Your task to perform on an android device: turn off translation in the chrome app Image 0: 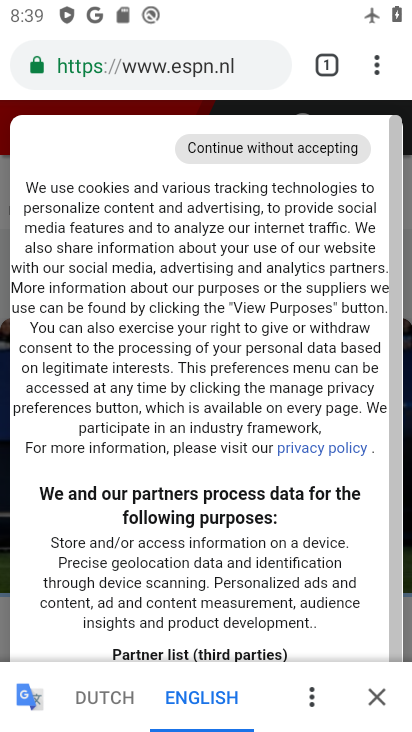
Step 0: press home button
Your task to perform on an android device: turn off translation in the chrome app Image 1: 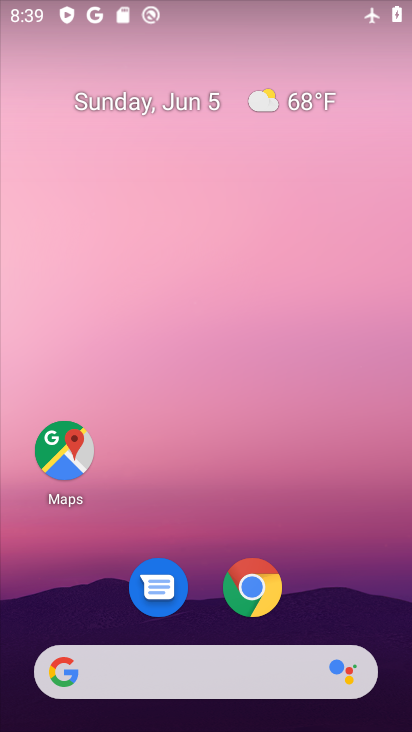
Step 1: click (254, 598)
Your task to perform on an android device: turn off translation in the chrome app Image 2: 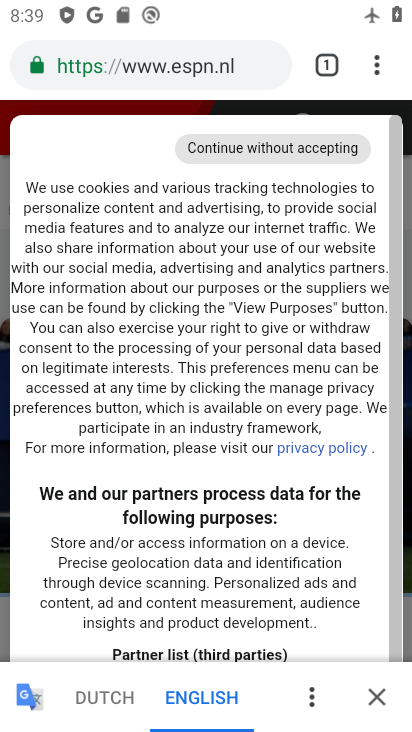
Step 2: click (380, 696)
Your task to perform on an android device: turn off translation in the chrome app Image 3: 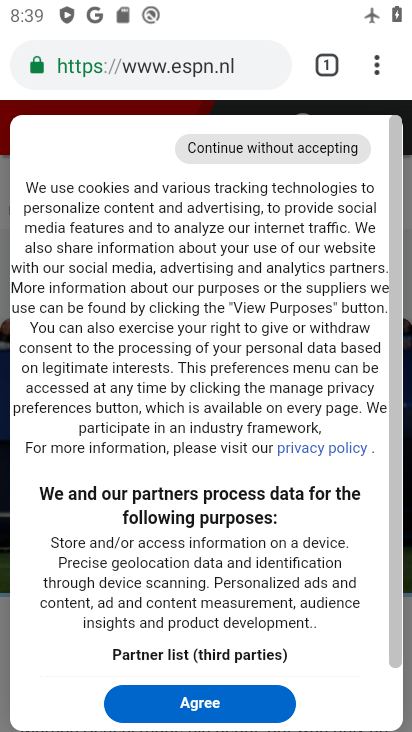
Step 3: click (274, 710)
Your task to perform on an android device: turn off translation in the chrome app Image 4: 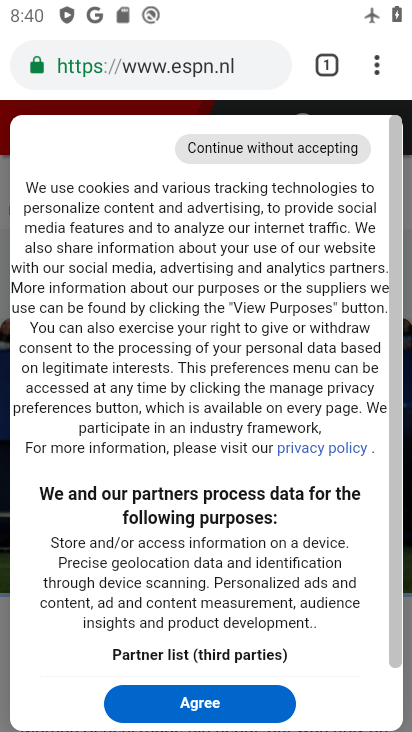
Step 4: click (274, 710)
Your task to perform on an android device: turn off translation in the chrome app Image 5: 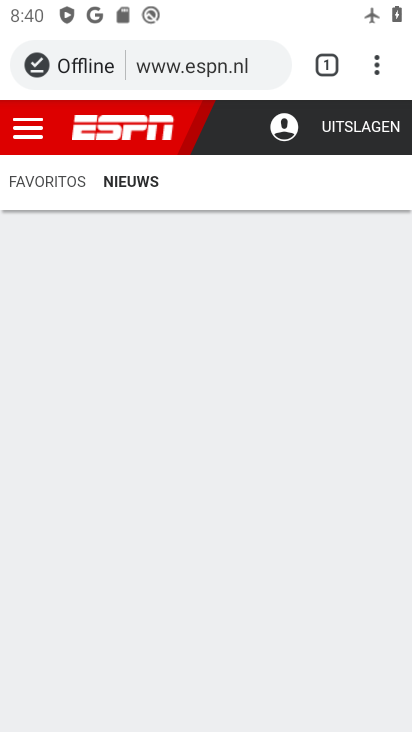
Step 5: click (372, 64)
Your task to perform on an android device: turn off translation in the chrome app Image 6: 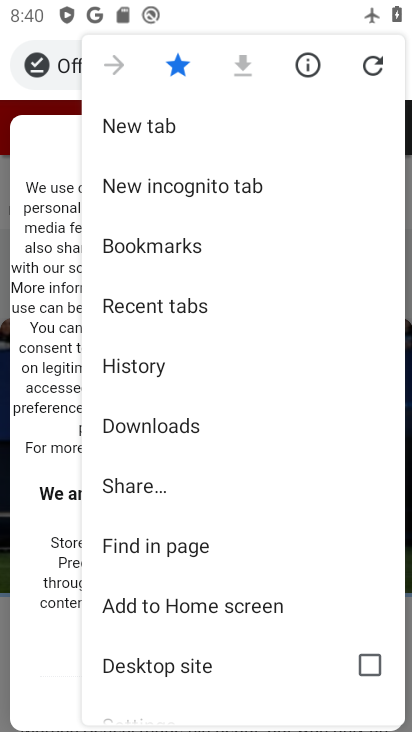
Step 6: drag from (202, 594) to (158, 177)
Your task to perform on an android device: turn off translation in the chrome app Image 7: 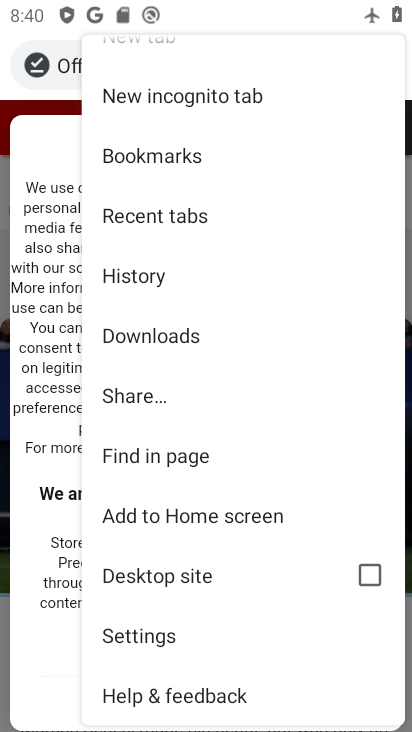
Step 7: click (136, 629)
Your task to perform on an android device: turn off translation in the chrome app Image 8: 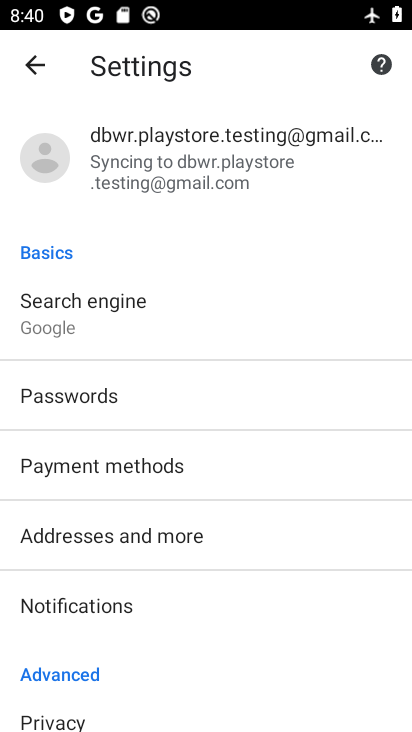
Step 8: drag from (138, 650) to (139, 259)
Your task to perform on an android device: turn off translation in the chrome app Image 9: 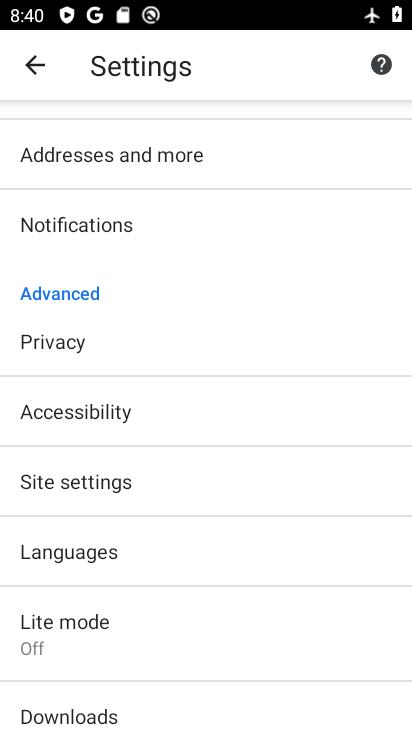
Step 9: click (99, 551)
Your task to perform on an android device: turn off translation in the chrome app Image 10: 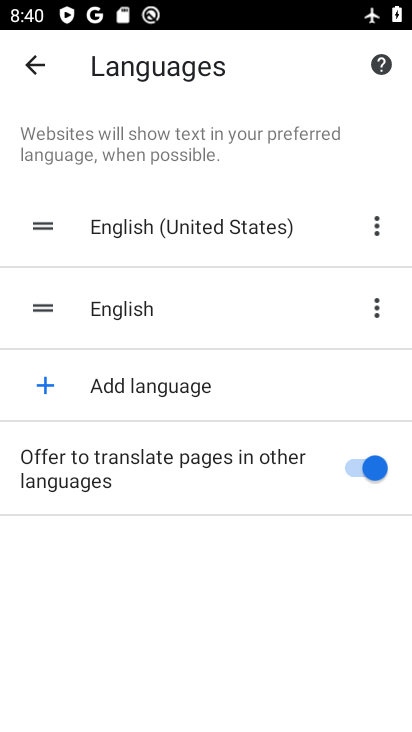
Step 10: click (359, 467)
Your task to perform on an android device: turn off translation in the chrome app Image 11: 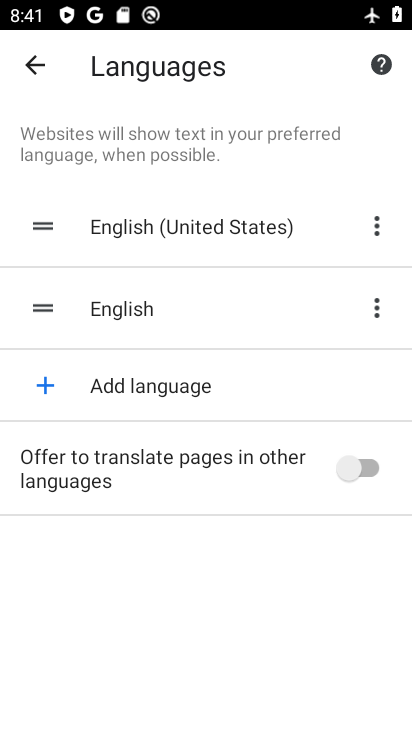
Step 11: task complete